Your task to perform on an android device: What's the weather? Image 0: 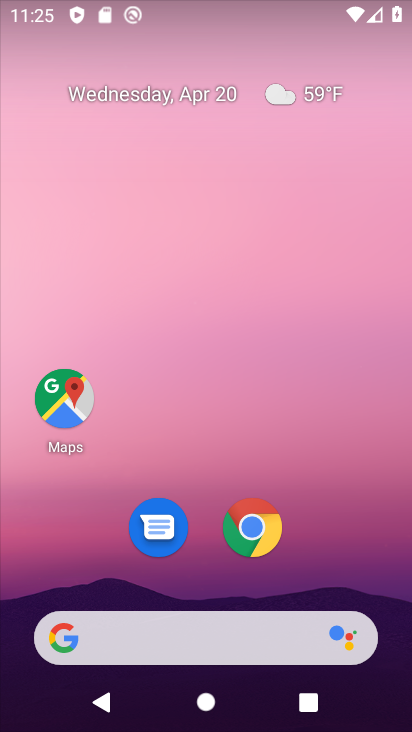
Step 0: drag from (355, 508) to (367, 228)
Your task to perform on an android device: What's the weather? Image 1: 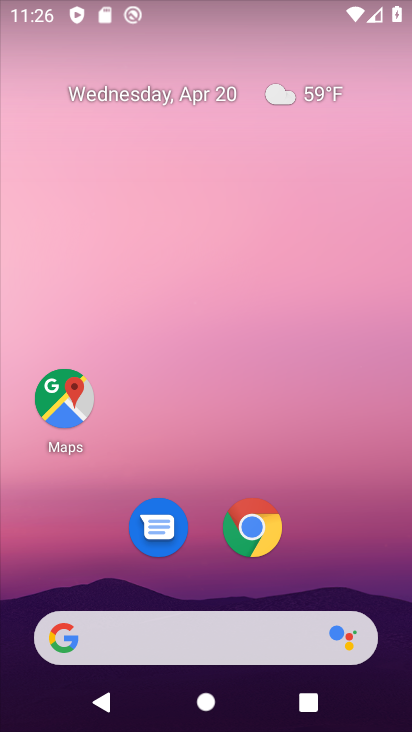
Step 1: drag from (317, 473) to (320, 262)
Your task to perform on an android device: What's the weather? Image 2: 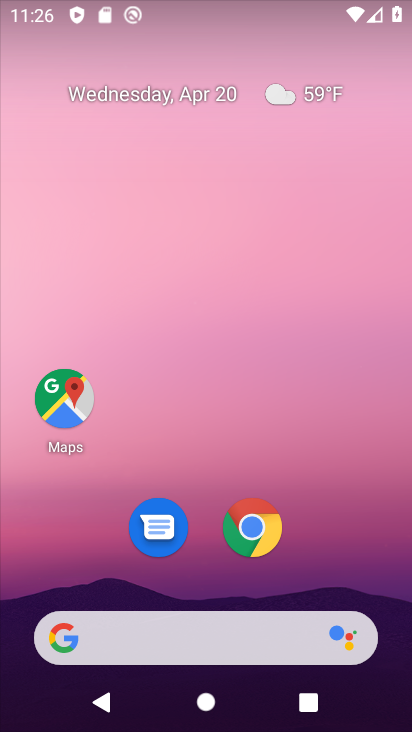
Step 2: drag from (329, 517) to (347, 260)
Your task to perform on an android device: What's the weather? Image 3: 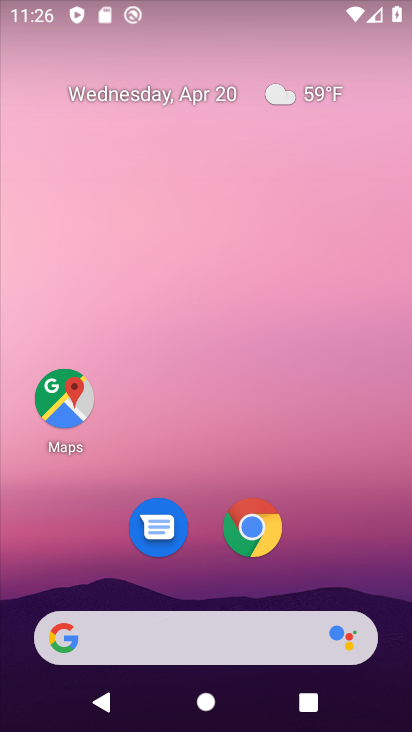
Step 3: drag from (325, 533) to (331, 267)
Your task to perform on an android device: What's the weather? Image 4: 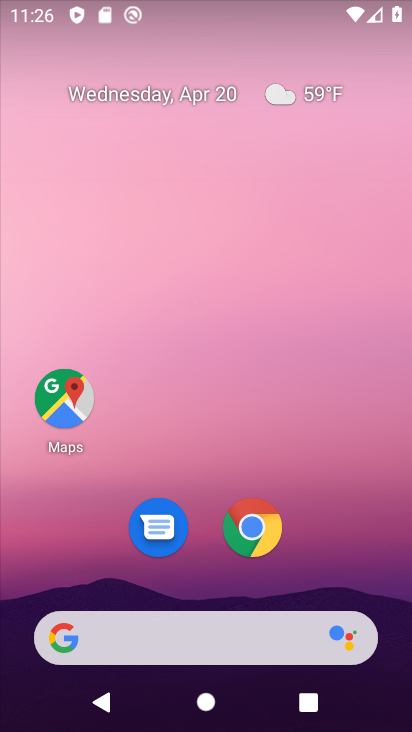
Step 4: drag from (343, 488) to (351, 98)
Your task to perform on an android device: What's the weather? Image 5: 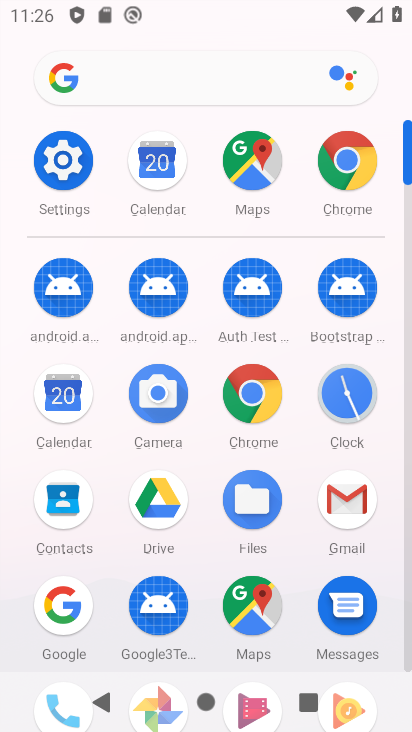
Step 5: click (345, 165)
Your task to perform on an android device: What's the weather? Image 6: 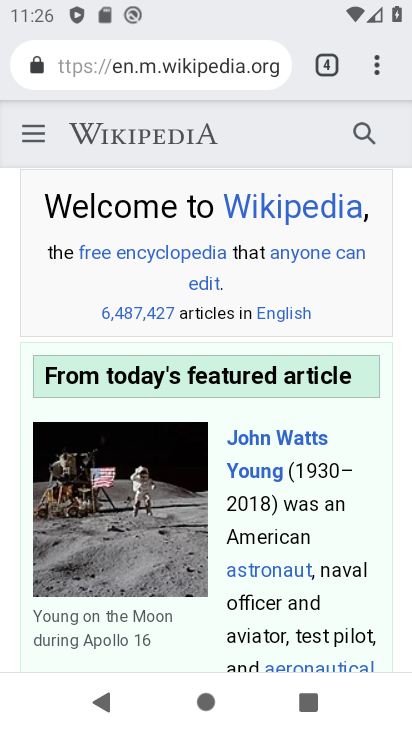
Step 6: click (266, 61)
Your task to perform on an android device: What's the weather? Image 7: 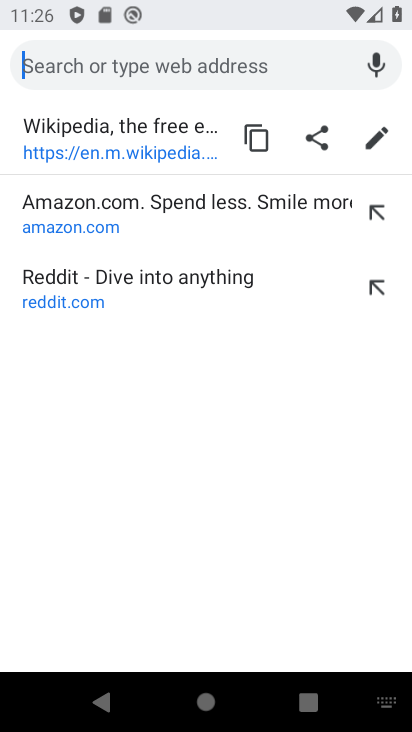
Step 7: type "what's the weather"
Your task to perform on an android device: What's the weather? Image 8: 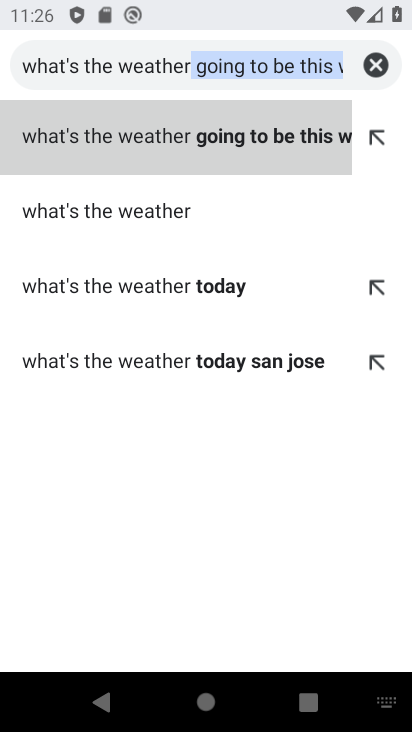
Step 8: click (91, 197)
Your task to perform on an android device: What's the weather? Image 9: 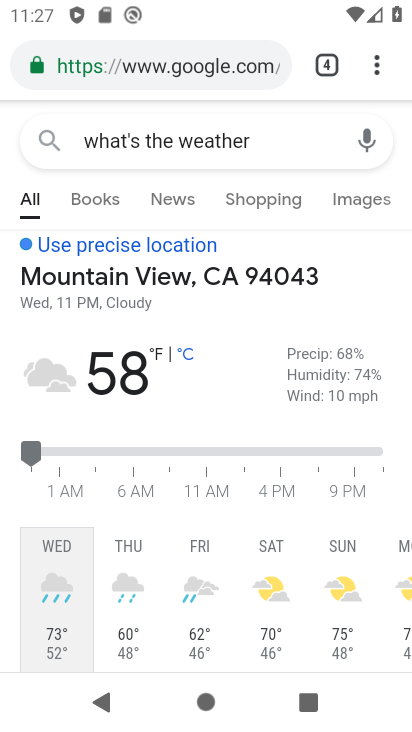
Step 9: task complete